Your task to perform on an android device: Check the news Image 0: 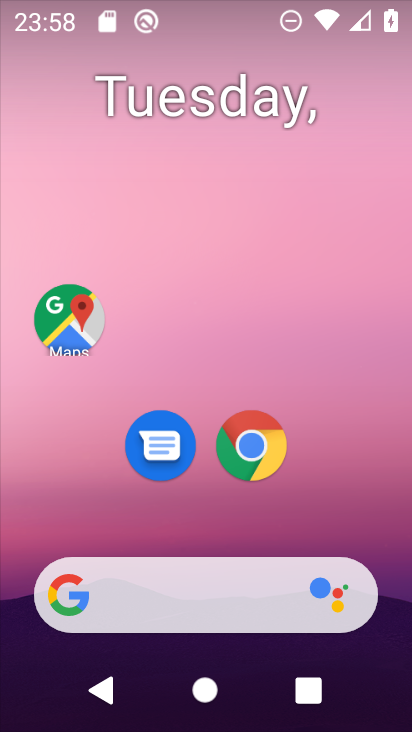
Step 0: click (261, 450)
Your task to perform on an android device: Check the news Image 1: 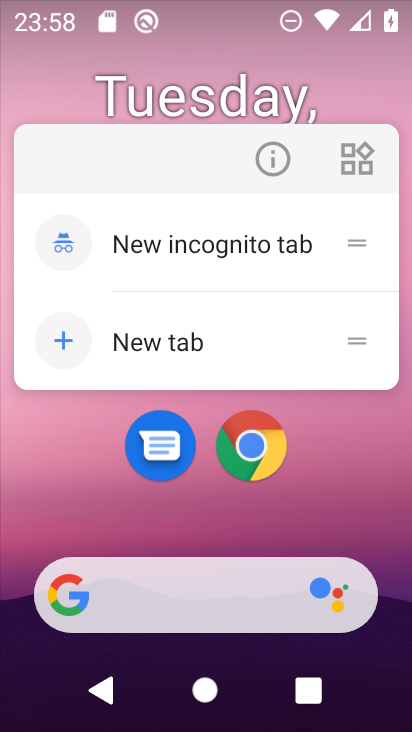
Step 1: click (261, 450)
Your task to perform on an android device: Check the news Image 2: 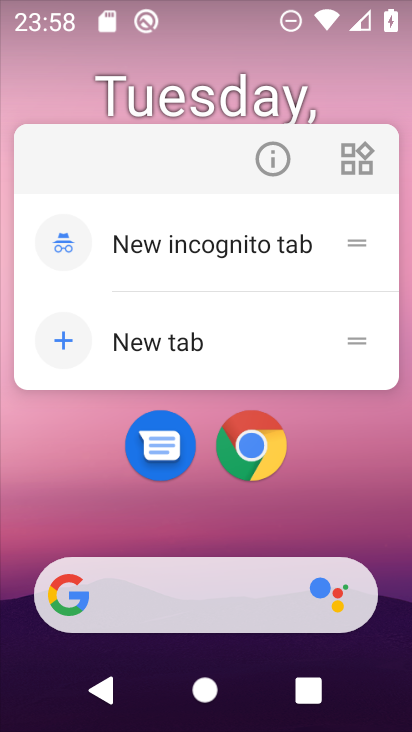
Step 2: click (251, 470)
Your task to perform on an android device: Check the news Image 3: 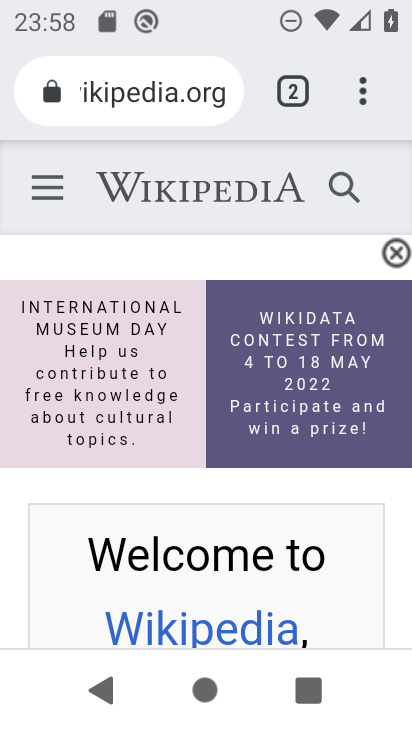
Step 3: click (149, 83)
Your task to perform on an android device: Check the news Image 4: 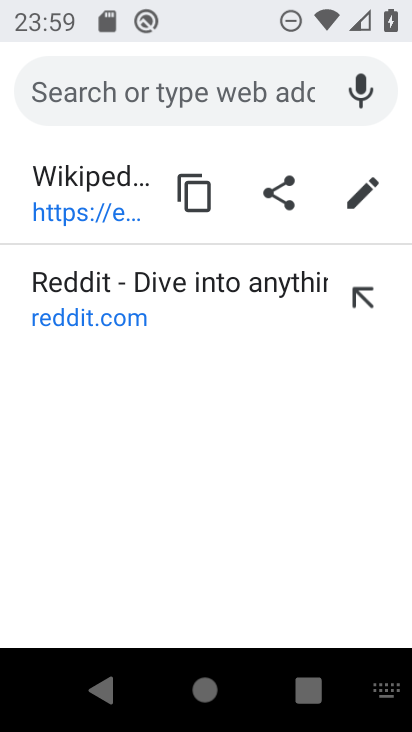
Step 4: type "news"
Your task to perform on an android device: Check the news Image 5: 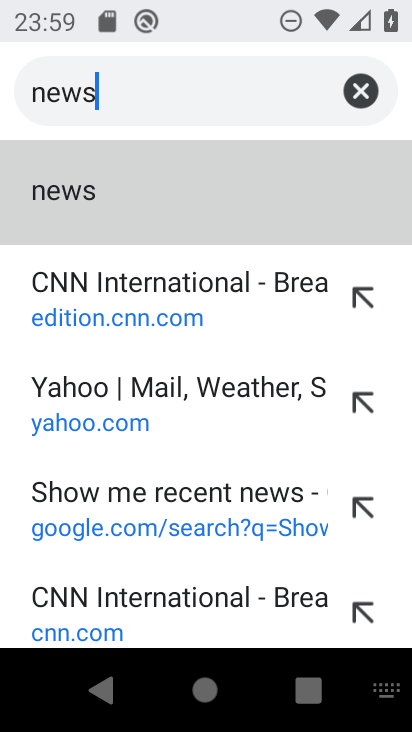
Step 5: click (74, 199)
Your task to perform on an android device: Check the news Image 6: 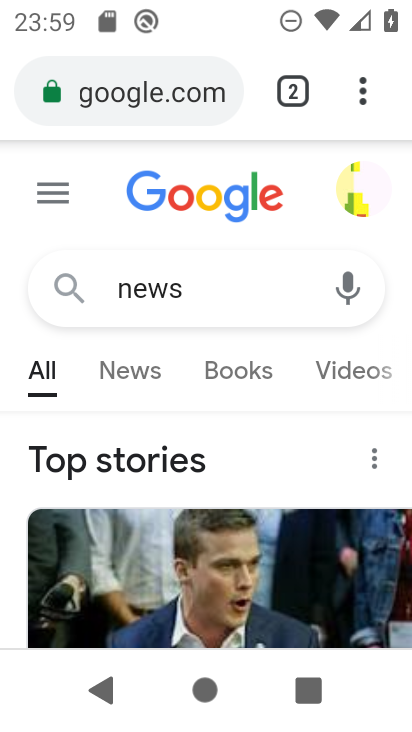
Step 6: click (155, 366)
Your task to perform on an android device: Check the news Image 7: 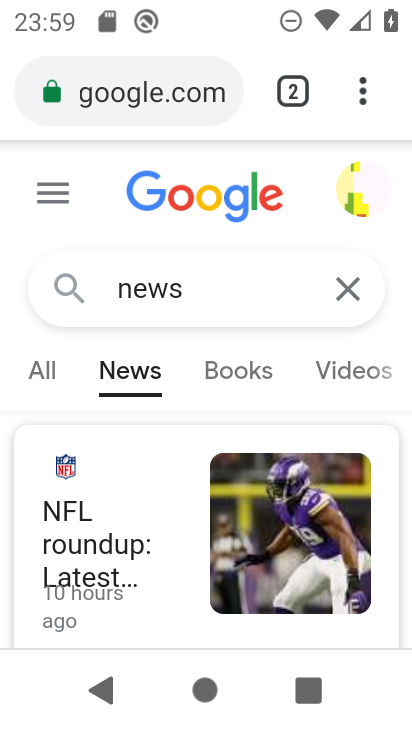
Step 7: task complete